Your task to perform on an android device: change alarm snooze length Image 0: 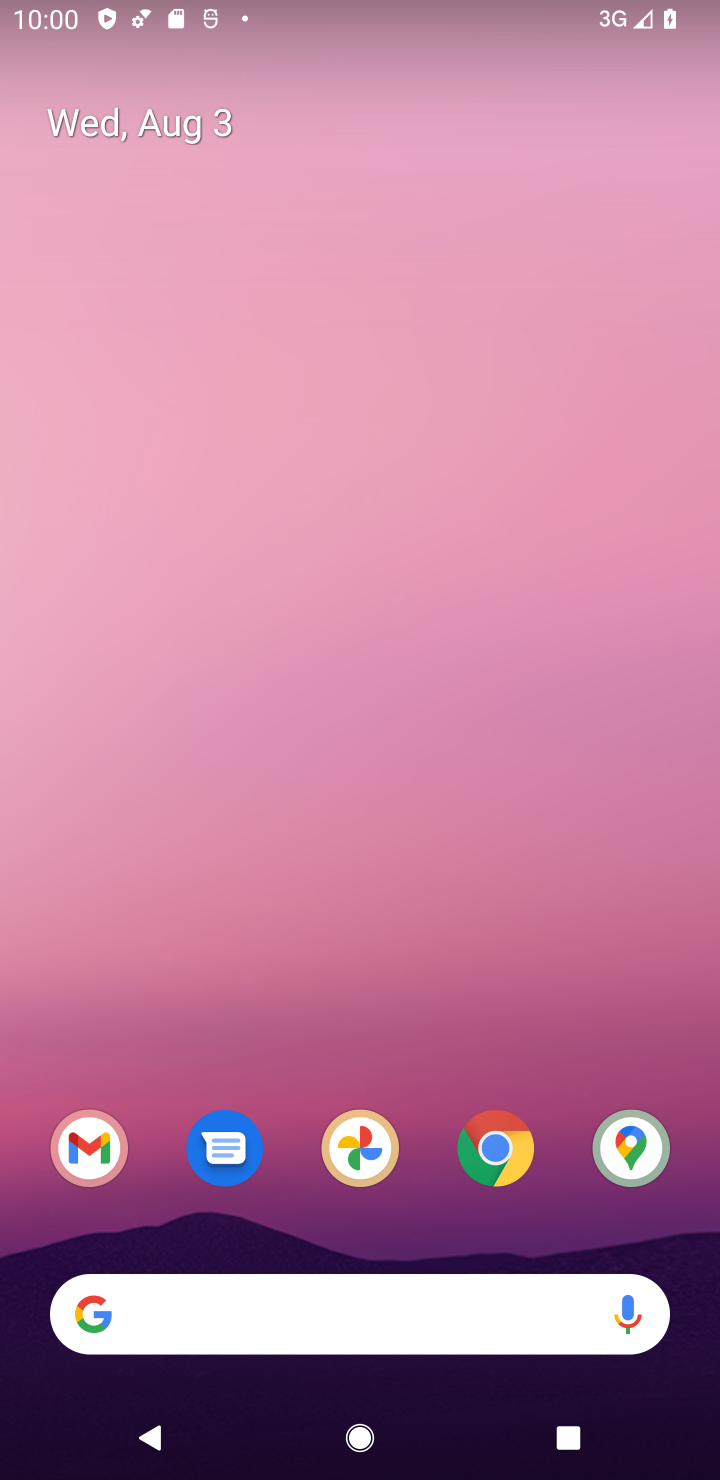
Step 0: drag from (352, 1079) to (441, 131)
Your task to perform on an android device: change alarm snooze length Image 1: 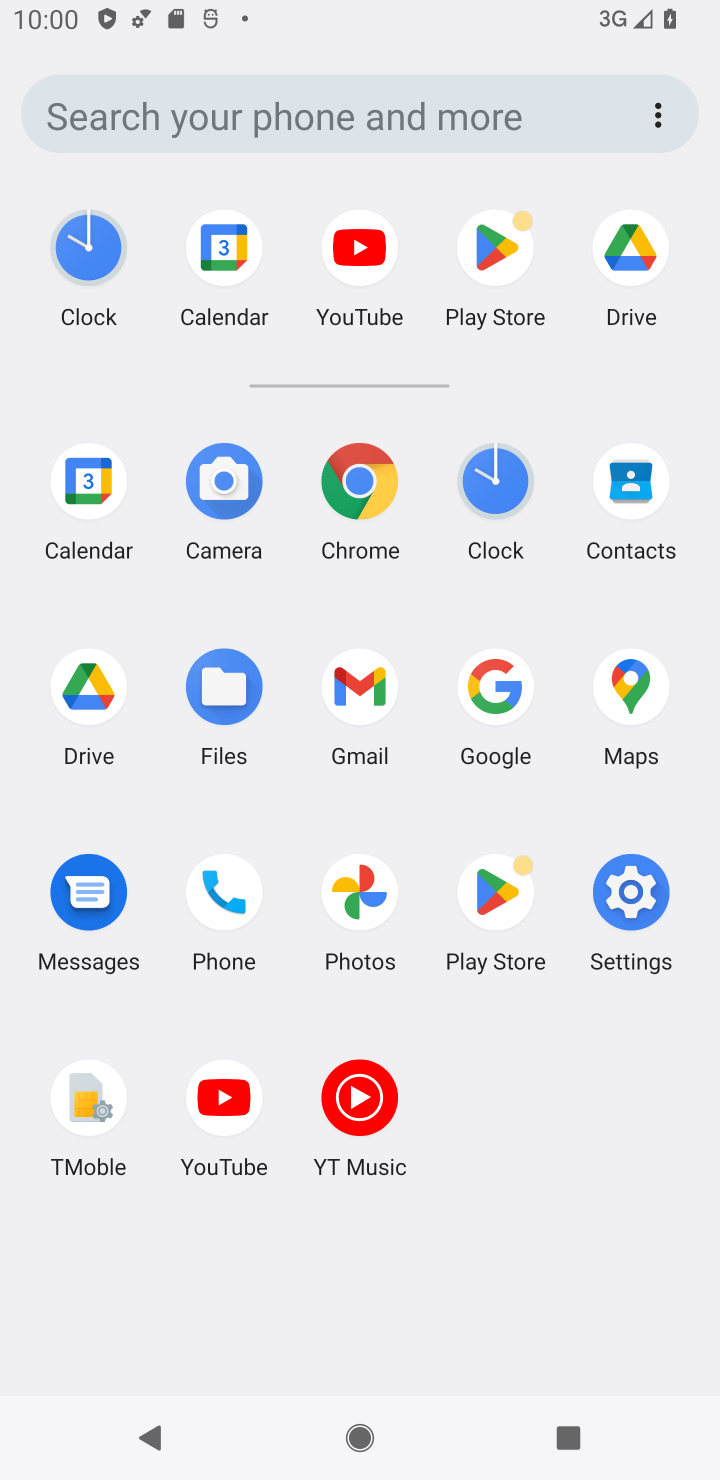
Step 1: click (505, 494)
Your task to perform on an android device: change alarm snooze length Image 2: 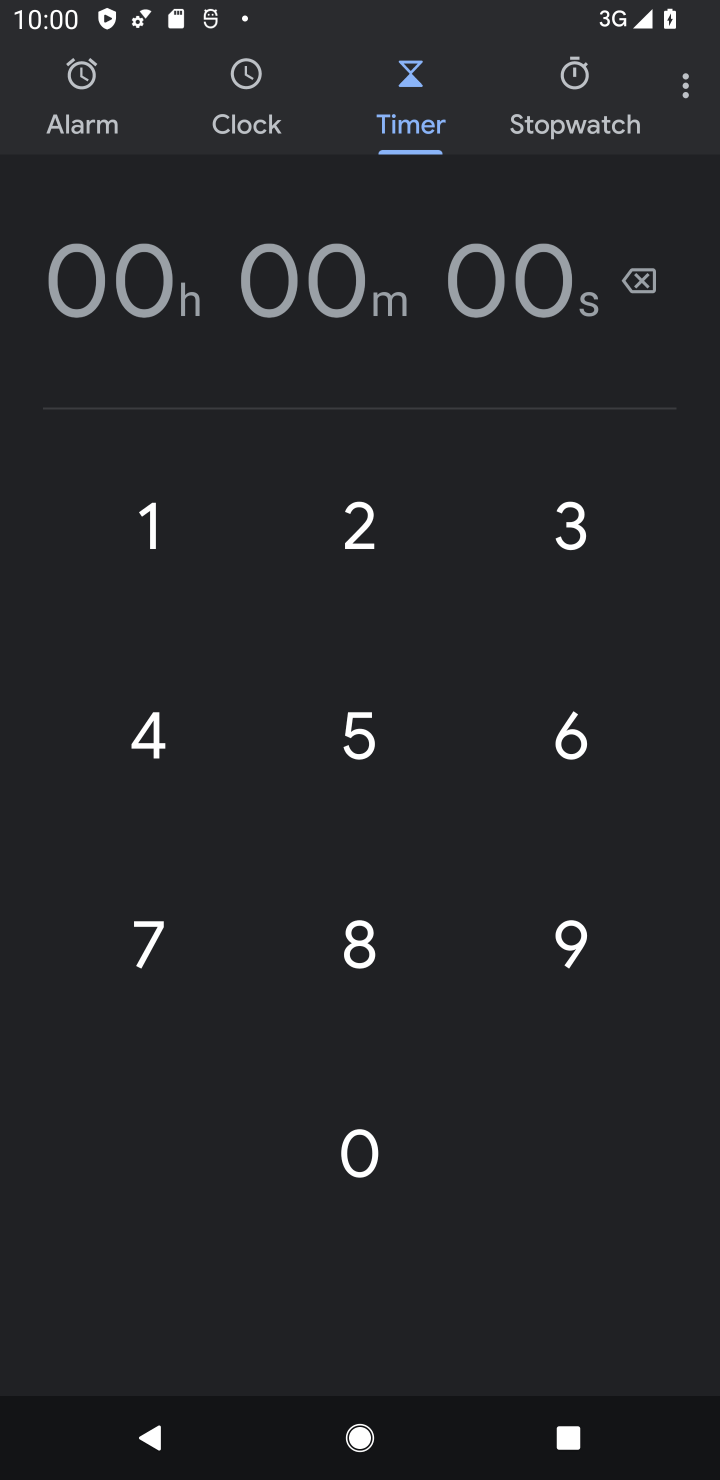
Step 2: click (689, 94)
Your task to perform on an android device: change alarm snooze length Image 3: 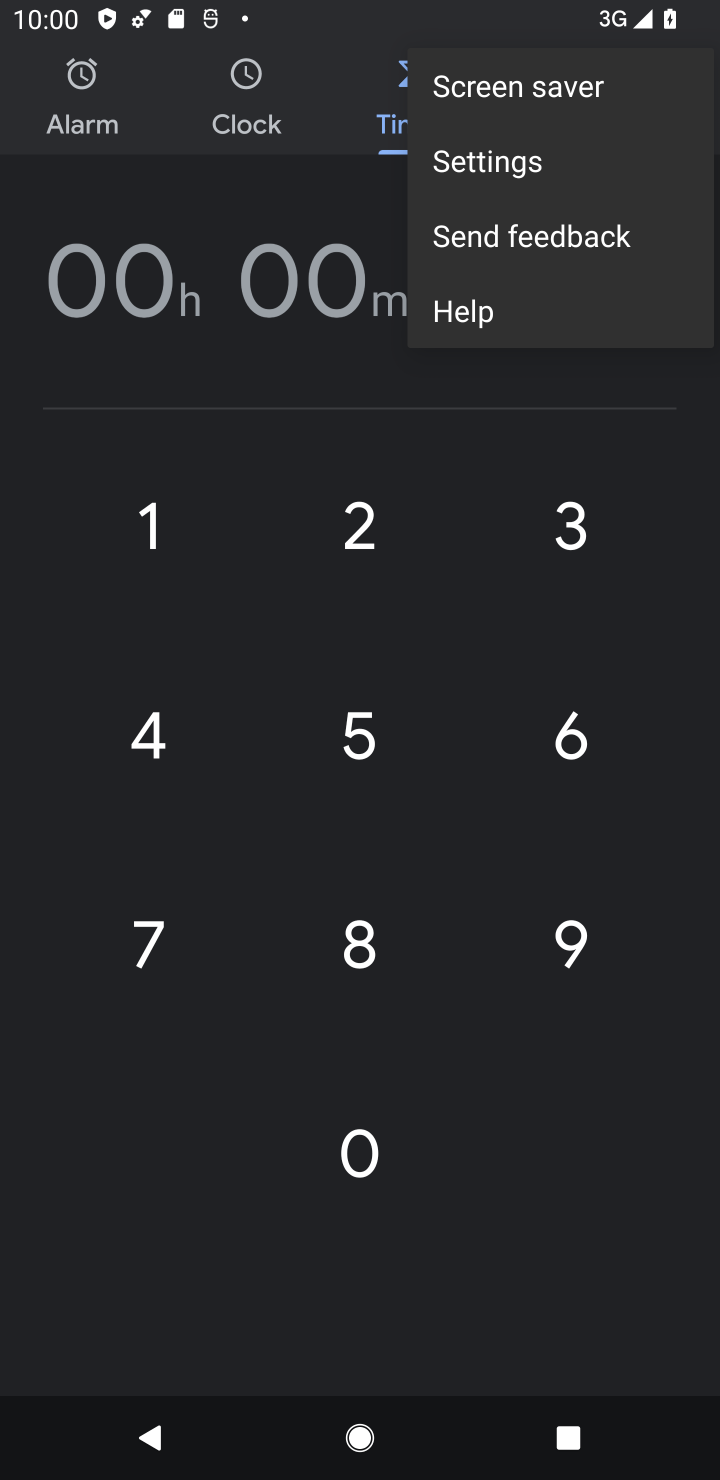
Step 3: click (494, 155)
Your task to perform on an android device: change alarm snooze length Image 4: 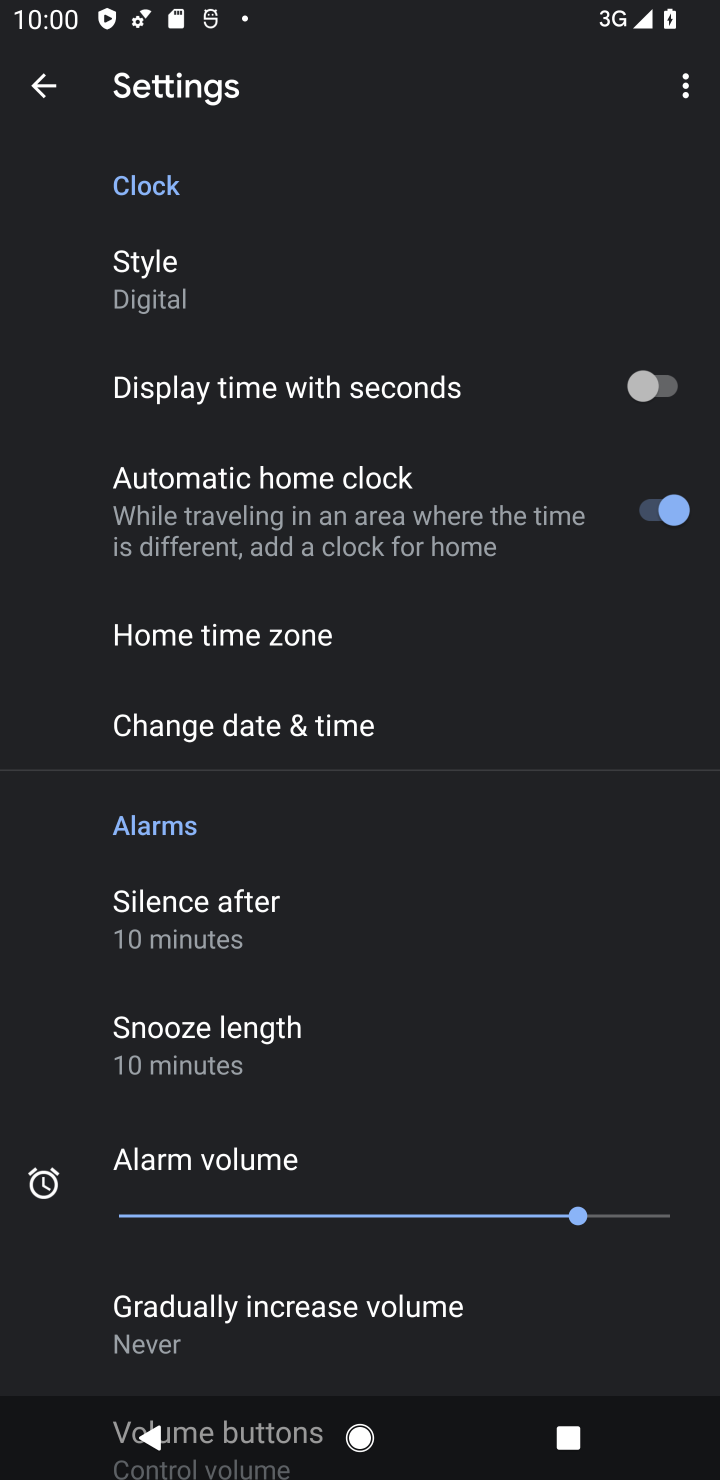
Step 4: drag from (441, 993) to (446, 507)
Your task to perform on an android device: change alarm snooze length Image 5: 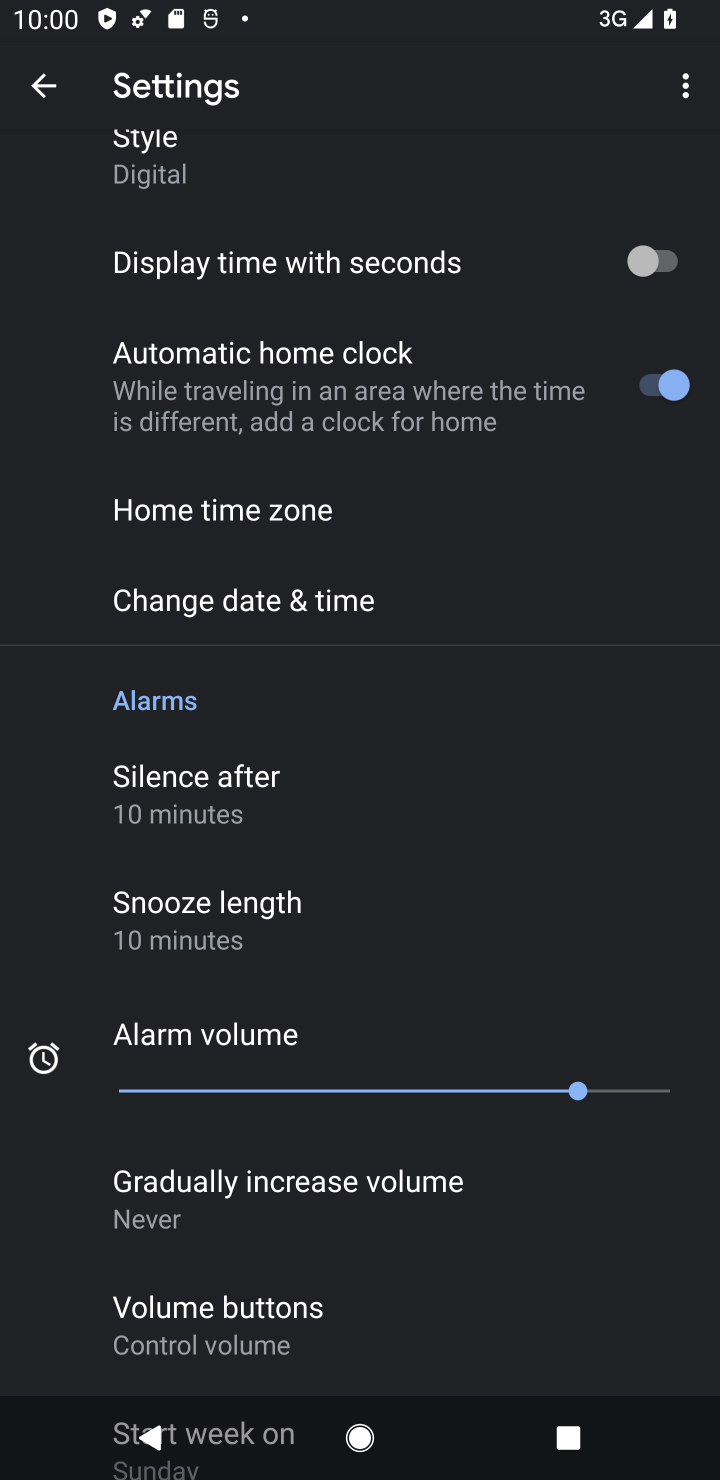
Step 5: click (311, 935)
Your task to perform on an android device: change alarm snooze length Image 6: 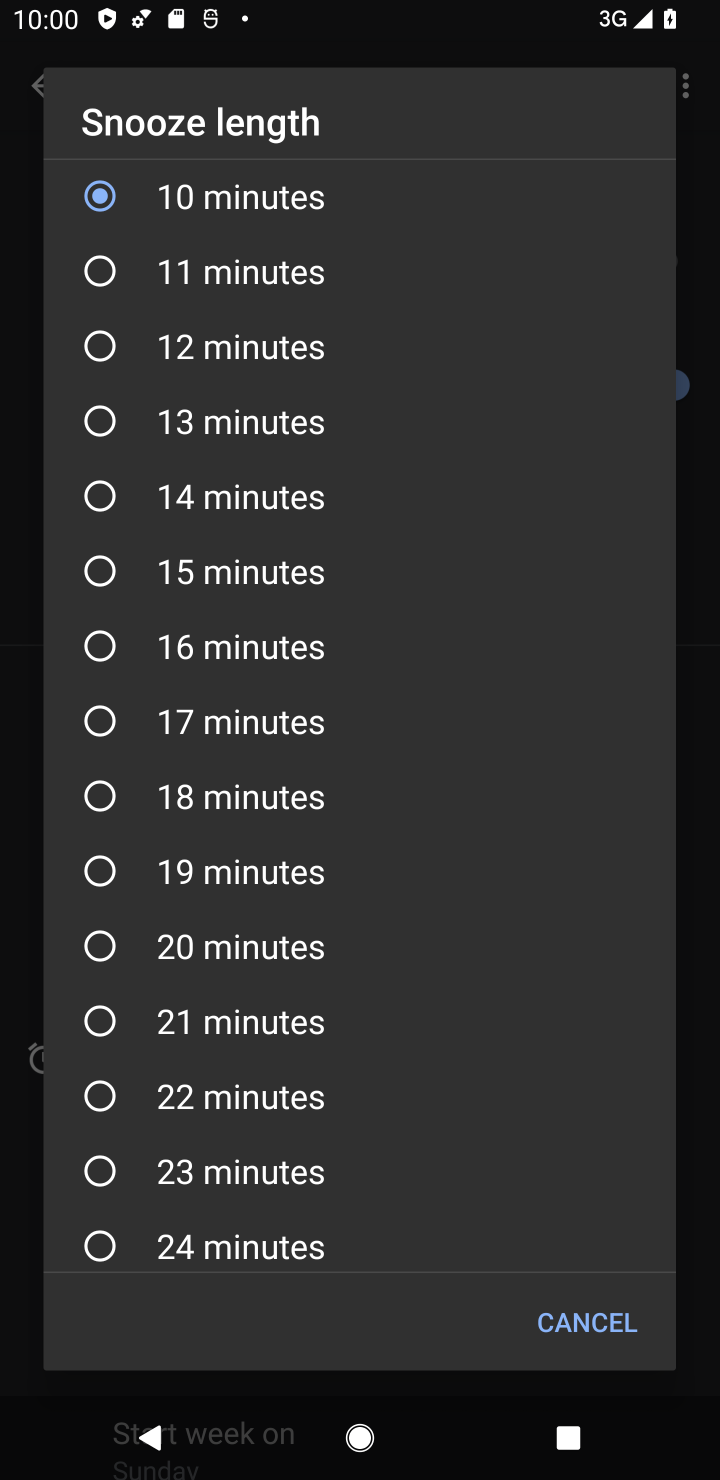
Step 6: click (107, 638)
Your task to perform on an android device: change alarm snooze length Image 7: 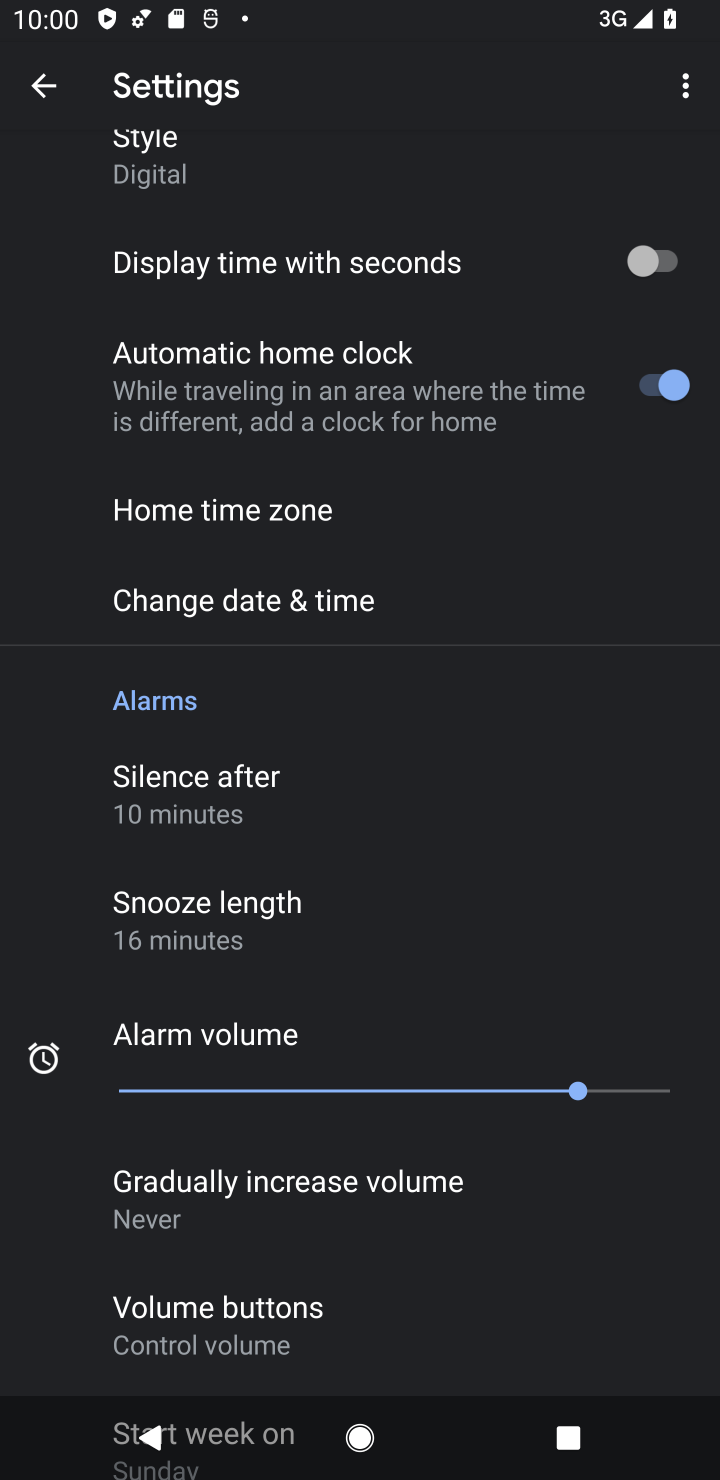
Step 7: task complete